Your task to perform on an android device: Go to wifi settings Image 0: 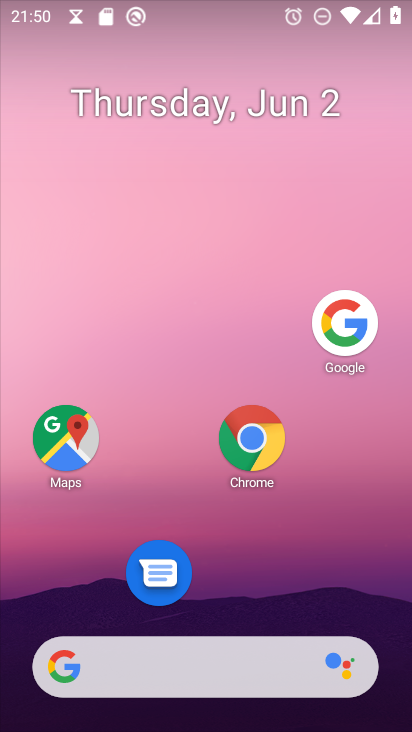
Step 0: press home button
Your task to perform on an android device: Go to wifi settings Image 1: 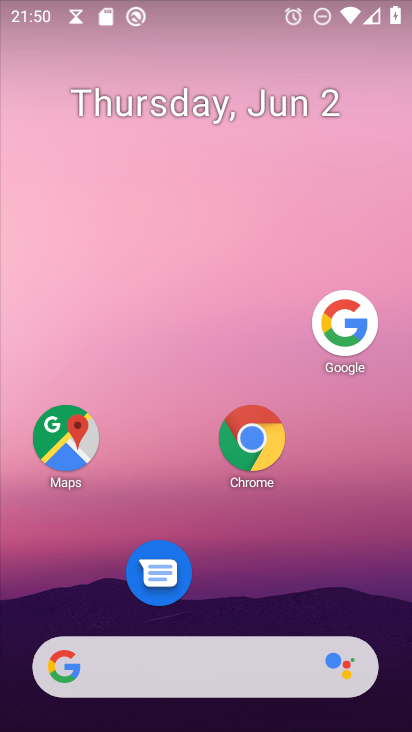
Step 1: drag from (154, 675) to (293, 74)
Your task to perform on an android device: Go to wifi settings Image 2: 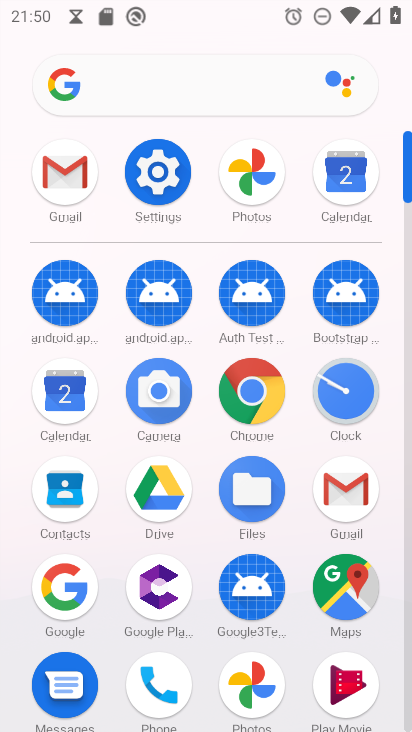
Step 2: click (153, 180)
Your task to perform on an android device: Go to wifi settings Image 3: 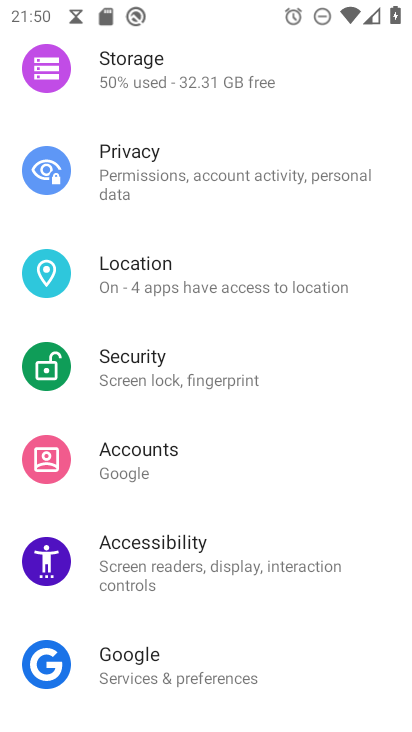
Step 3: drag from (309, 115) to (244, 575)
Your task to perform on an android device: Go to wifi settings Image 4: 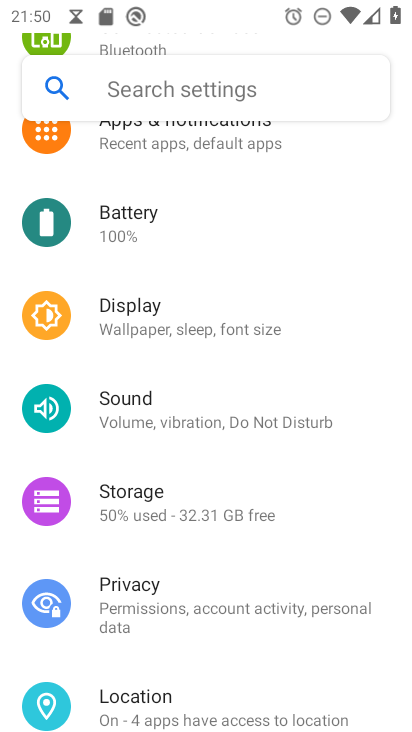
Step 4: drag from (286, 205) to (237, 628)
Your task to perform on an android device: Go to wifi settings Image 5: 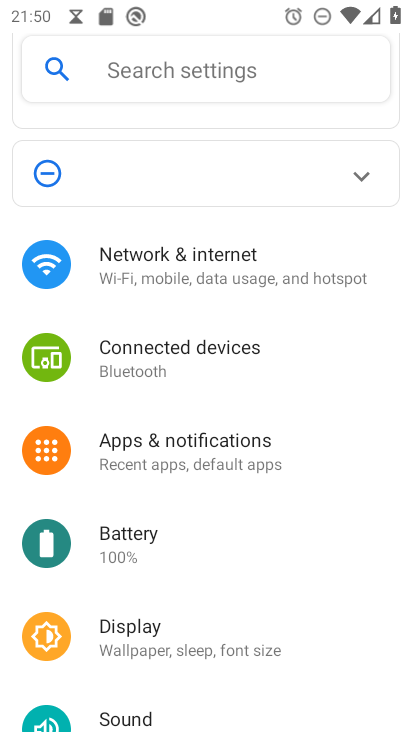
Step 5: click (207, 293)
Your task to perform on an android device: Go to wifi settings Image 6: 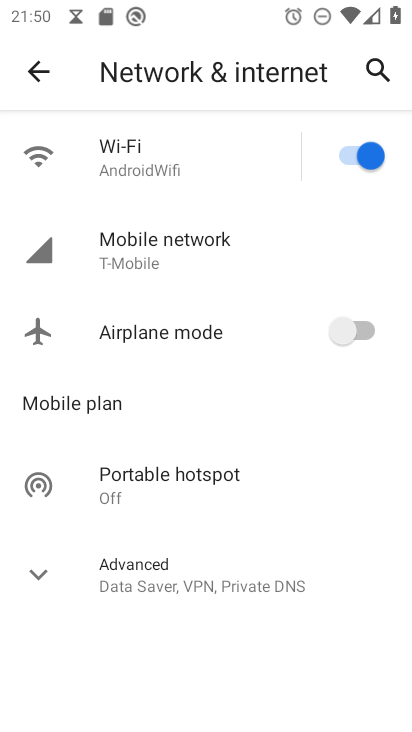
Step 6: click (134, 164)
Your task to perform on an android device: Go to wifi settings Image 7: 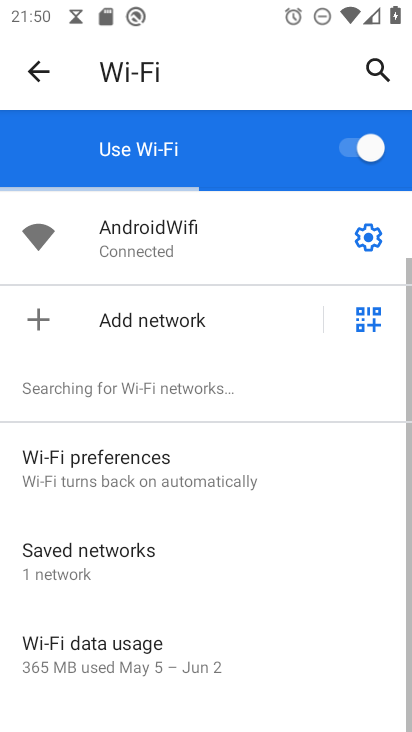
Step 7: task complete